Your task to perform on an android device: turn off priority inbox in the gmail app Image 0: 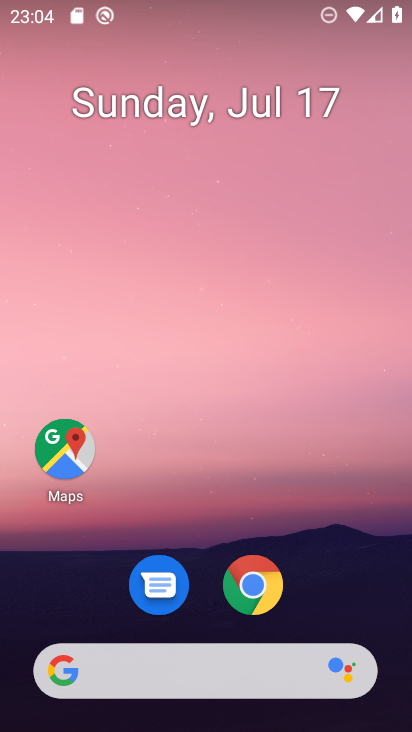
Step 0: press home button
Your task to perform on an android device: turn off priority inbox in the gmail app Image 1: 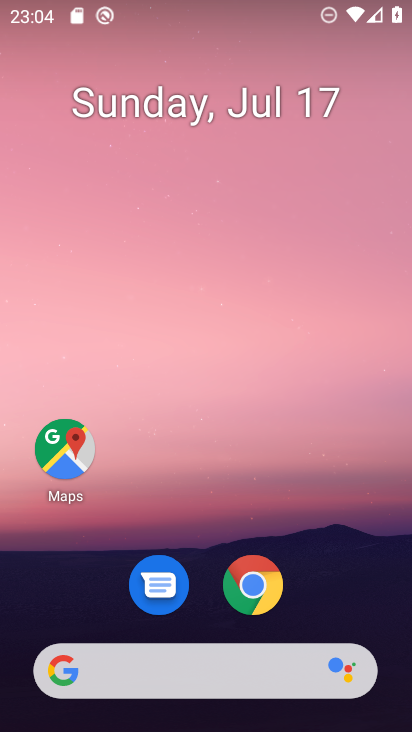
Step 1: drag from (223, 672) to (353, 143)
Your task to perform on an android device: turn off priority inbox in the gmail app Image 2: 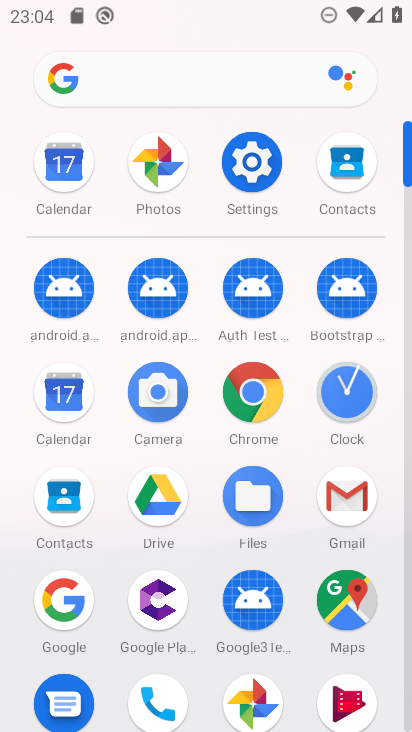
Step 2: click (347, 507)
Your task to perform on an android device: turn off priority inbox in the gmail app Image 3: 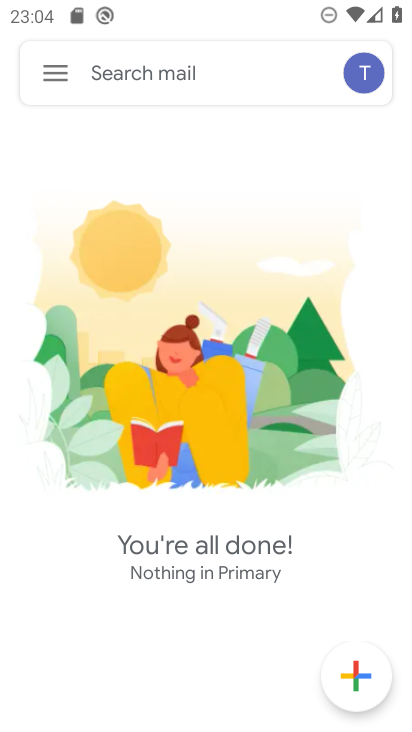
Step 3: click (57, 79)
Your task to perform on an android device: turn off priority inbox in the gmail app Image 4: 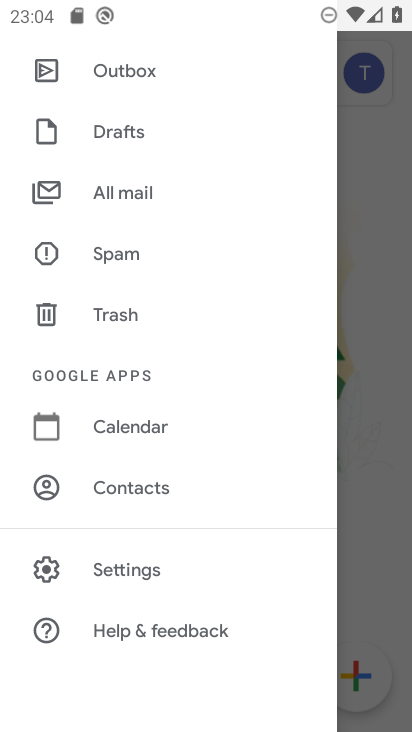
Step 4: click (140, 571)
Your task to perform on an android device: turn off priority inbox in the gmail app Image 5: 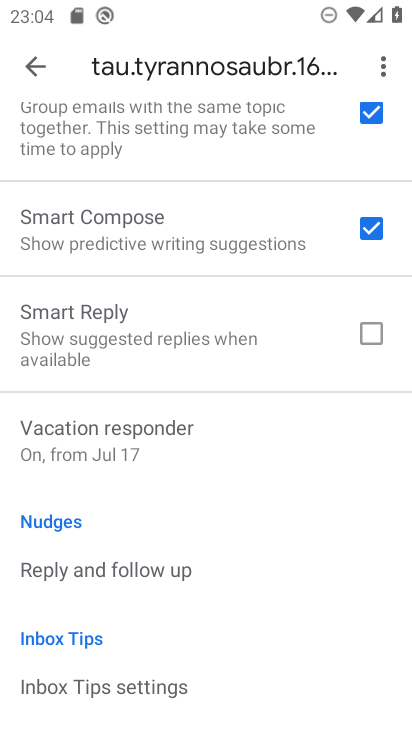
Step 5: drag from (248, 121) to (277, 616)
Your task to perform on an android device: turn off priority inbox in the gmail app Image 6: 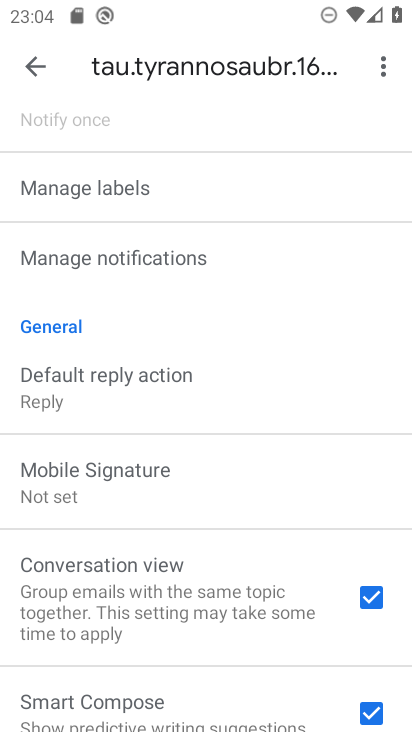
Step 6: drag from (214, 197) to (254, 648)
Your task to perform on an android device: turn off priority inbox in the gmail app Image 7: 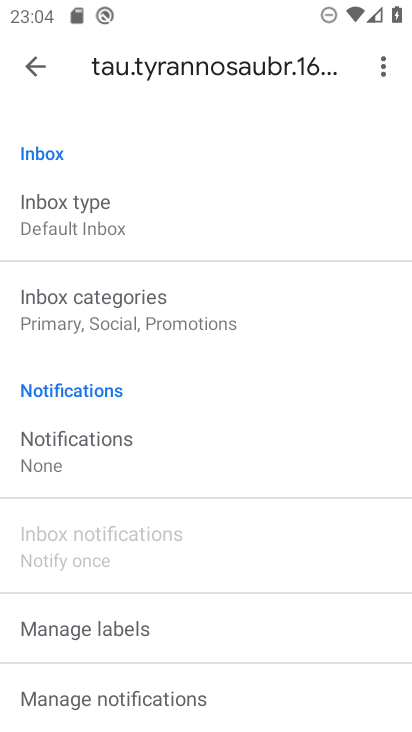
Step 7: click (84, 221)
Your task to perform on an android device: turn off priority inbox in the gmail app Image 8: 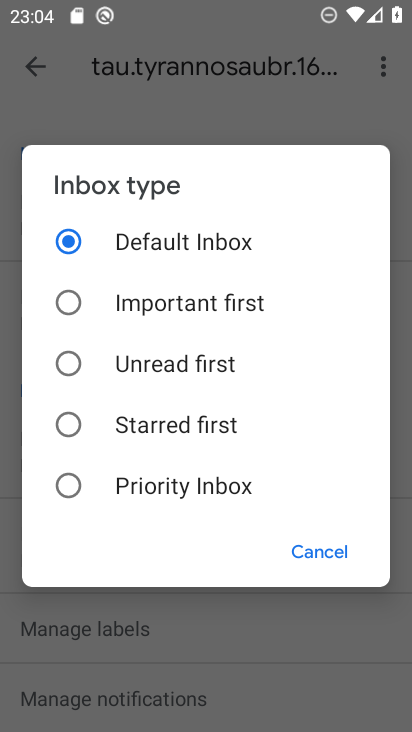
Step 8: click (71, 487)
Your task to perform on an android device: turn off priority inbox in the gmail app Image 9: 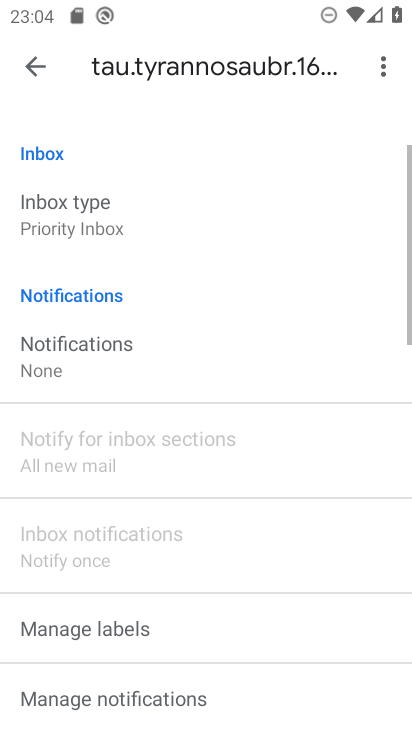
Step 9: click (104, 227)
Your task to perform on an android device: turn off priority inbox in the gmail app Image 10: 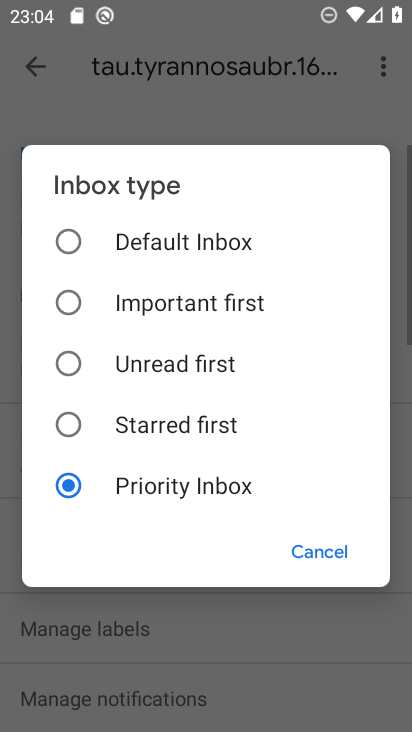
Step 10: click (70, 235)
Your task to perform on an android device: turn off priority inbox in the gmail app Image 11: 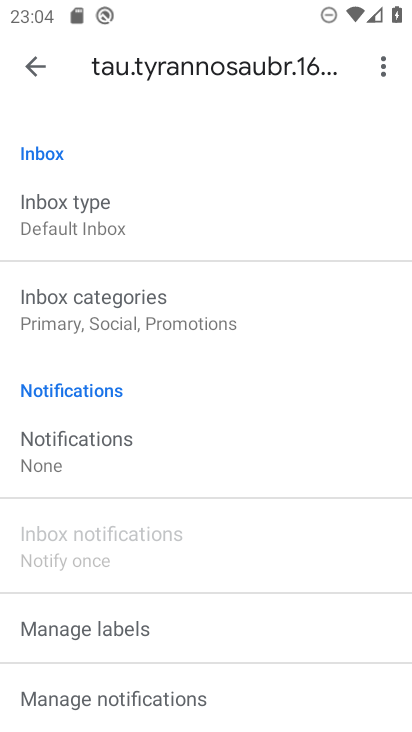
Step 11: task complete